Your task to perform on an android device: Toggle the flashlight Image 0: 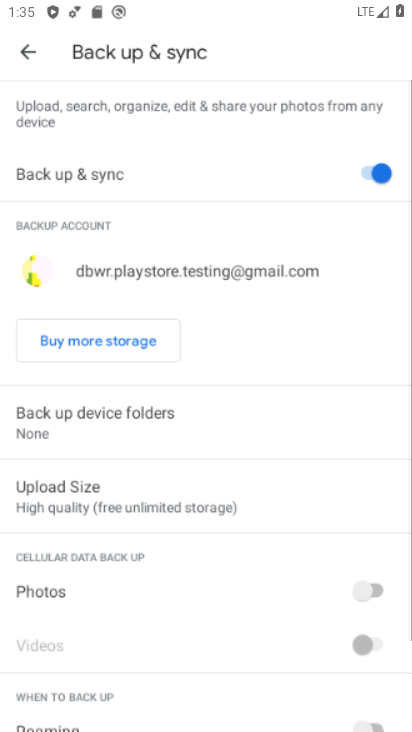
Step 0: drag from (133, 558) to (246, 73)
Your task to perform on an android device: Toggle the flashlight Image 1: 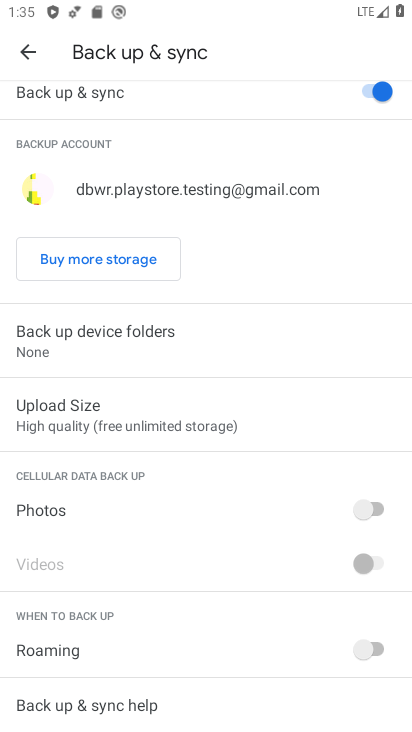
Step 1: drag from (198, 569) to (287, 176)
Your task to perform on an android device: Toggle the flashlight Image 2: 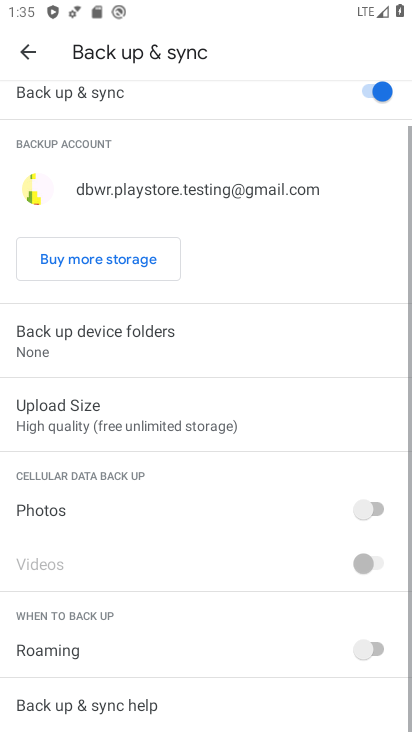
Step 2: press home button
Your task to perform on an android device: Toggle the flashlight Image 3: 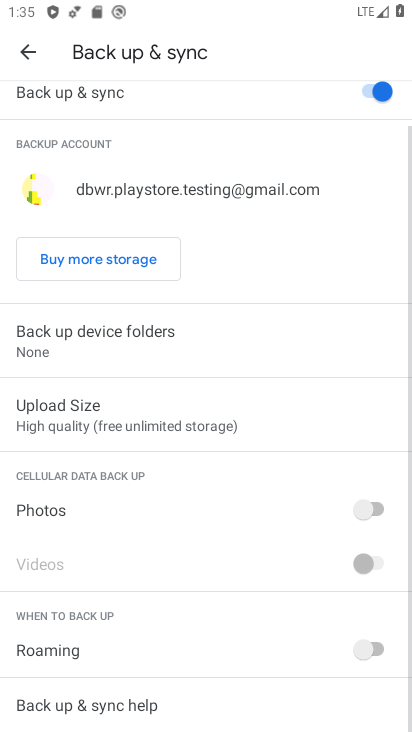
Step 3: click (290, 139)
Your task to perform on an android device: Toggle the flashlight Image 4: 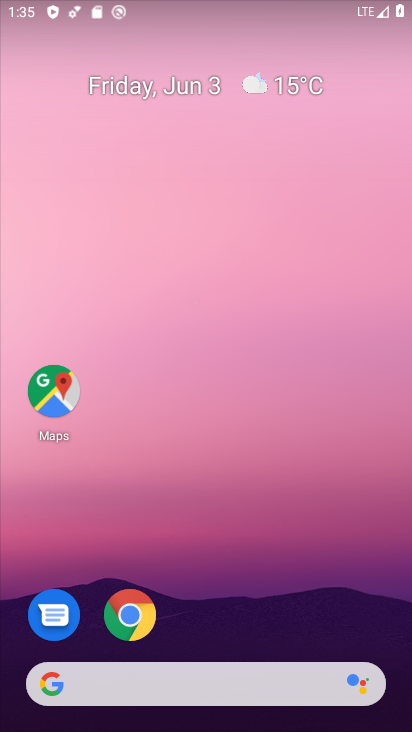
Step 4: drag from (218, 488) to (251, 238)
Your task to perform on an android device: Toggle the flashlight Image 5: 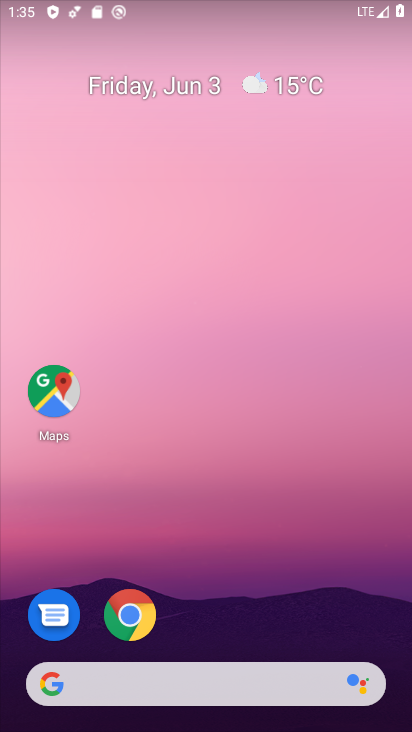
Step 5: drag from (224, 562) to (268, 67)
Your task to perform on an android device: Toggle the flashlight Image 6: 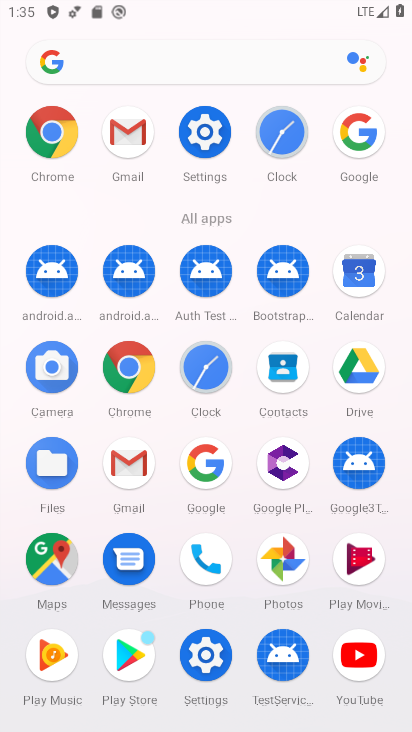
Step 6: click (217, 134)
Your task to perform on an android device: Toggle the flashlight Image 7: 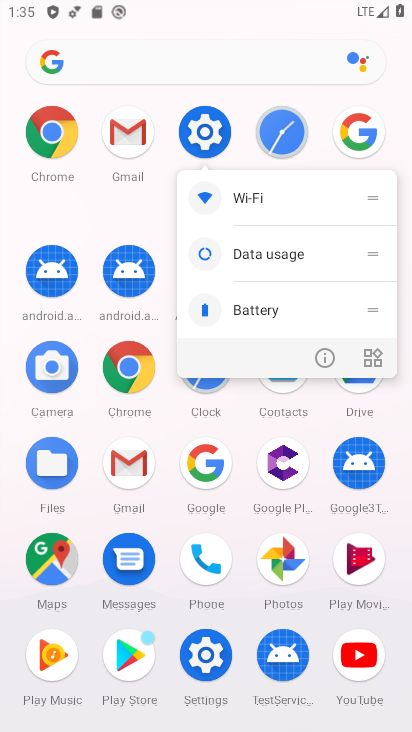
Step 7: click (332, 358)
Your task to perform on an android device: Toggle the flashlight Image 8: 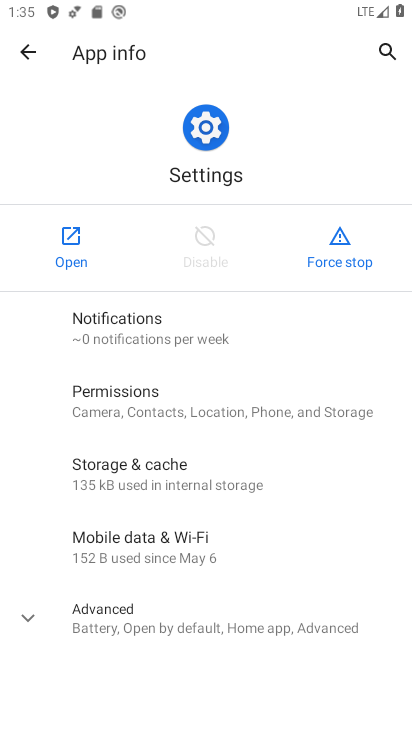
Step 8: click (71, 227)
Your task to perform on an android device: Toggle the flashlight Image 9: 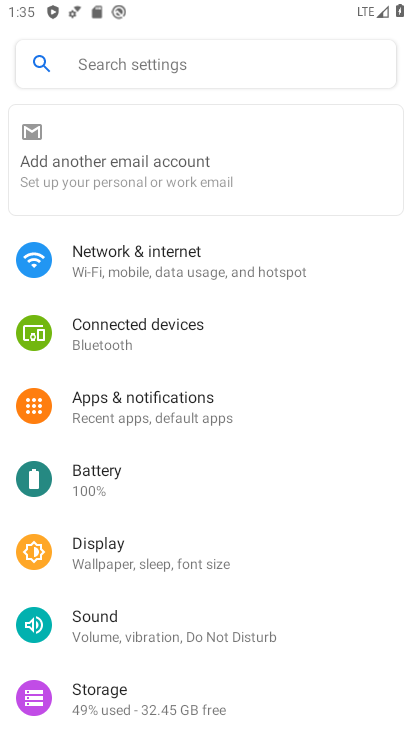
Step 9: drag from (237, 555) to (235, 196)
Your task to perform on an android device: Toggle the flashlight Image 10: 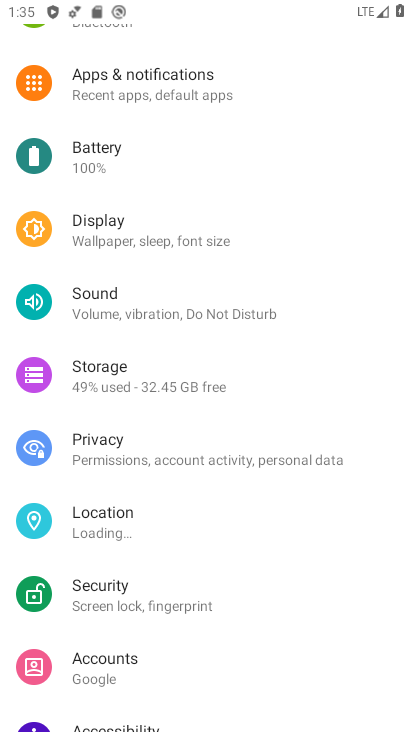
Step 10: drag from (222, 172) to (324, 727)
Your task to perform on an android device: Toggle the flashlight Image 11: 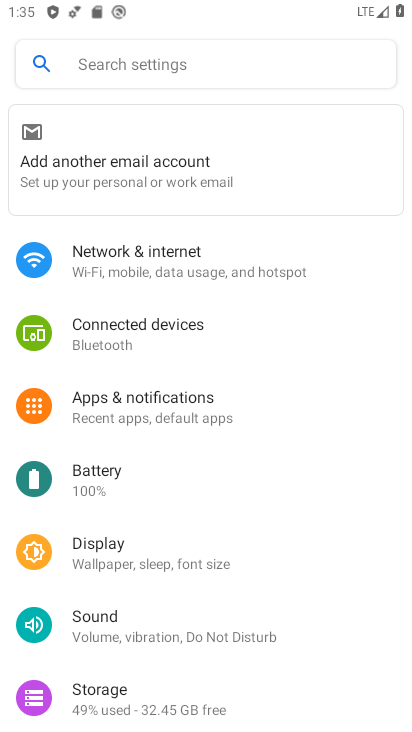
Step 11: click (108, 61)
Your task to perform on an android device: Toggle the flashlight Image 12: 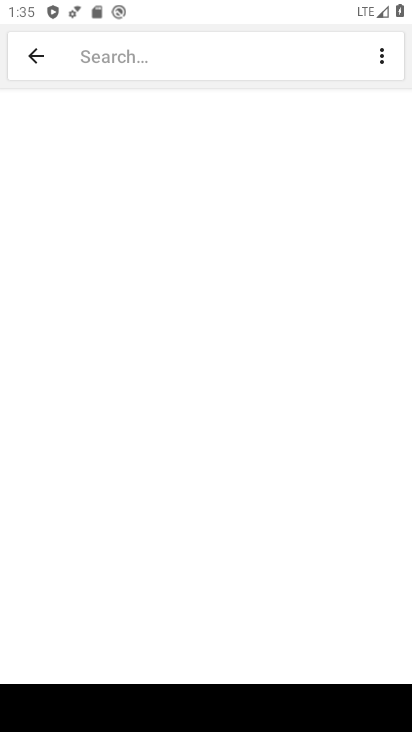
Step 12: click (141, 49)
Your task to perform on an android device: Toggle the flashlight Image 13: 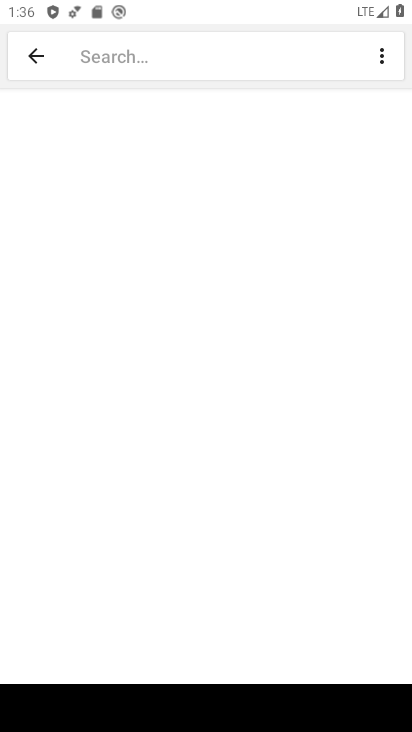
Step 13: click (108, 52)
Your task to perform on an android device: Toggle the flashlight Image 14: 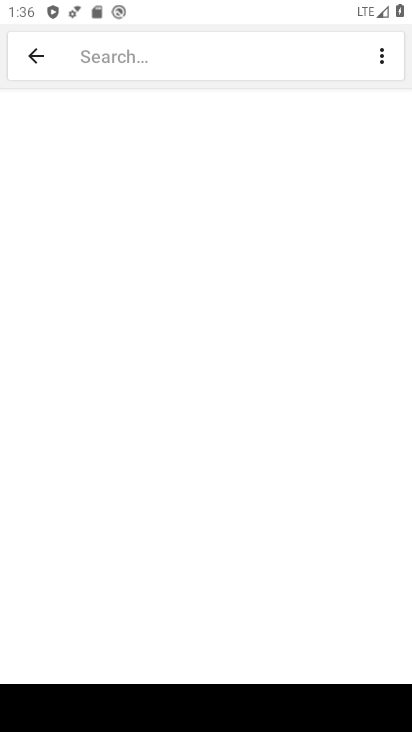
Step 14: click (138, 64)
Your task to perform on an android device: Toggle the flashlight Image 15: 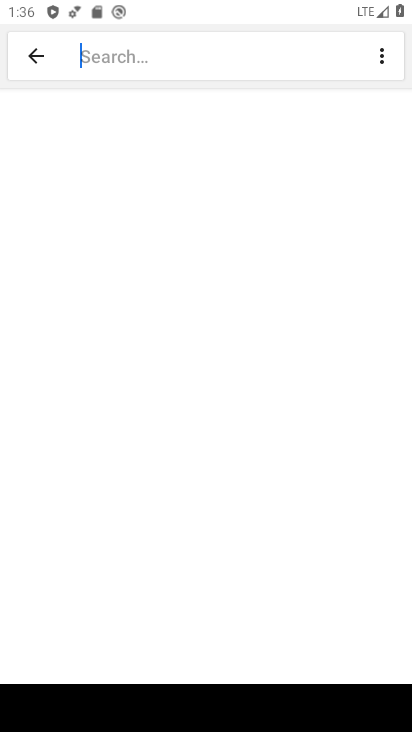
Step 15: click (133, 60)
Your task to perform on an android device: Toggle the flashlight Image 16: 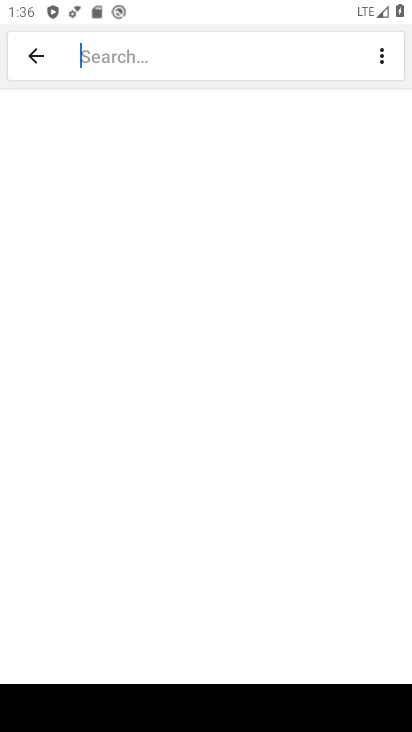
Step 16: click (113, 67)
Your task to perform on an android device: Toggle the flashlight Image 17: 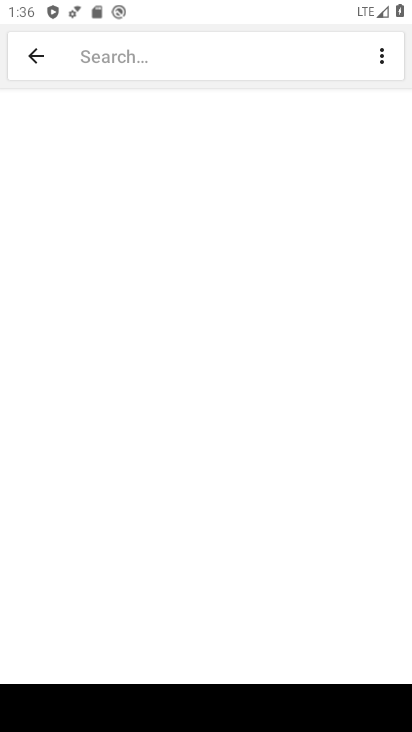
Step 17: type "flashlight"
Your task to perform on an android device: Toggle the flashlight Image 18: 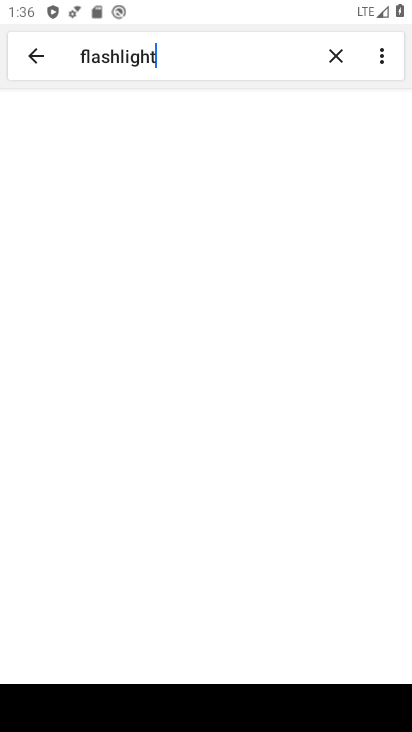
Step 18: type ""
Your task to perform on an android device: Toggle the flashlight Image 19: 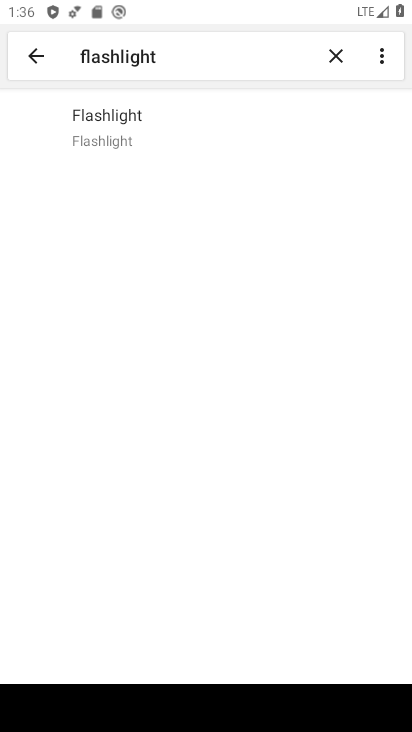
Step 19: click (116, 106)
Your task to perform on an android device: Toggle the flashlight Image 20: 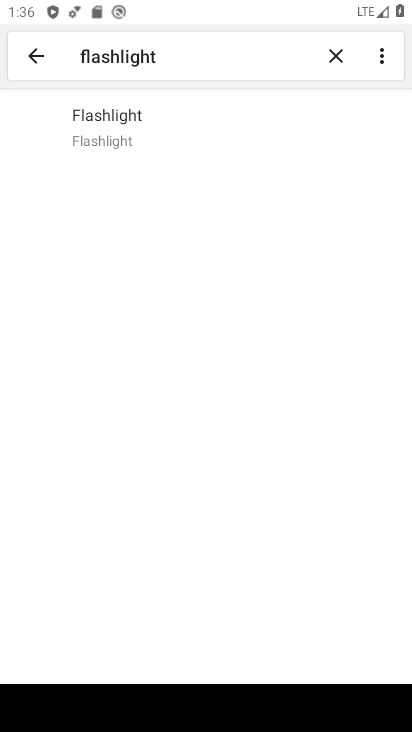
Step 20: task complete